Your task to perform on an android device: set the timer Image 0: 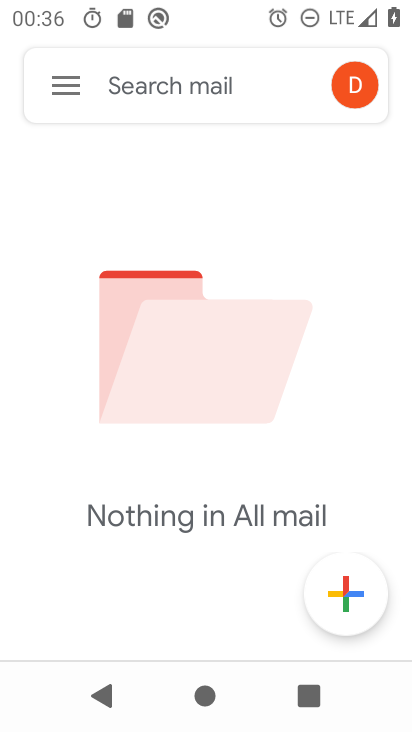
Step 0: press home button
Your task to perform on an android device: set the timer Image 1: 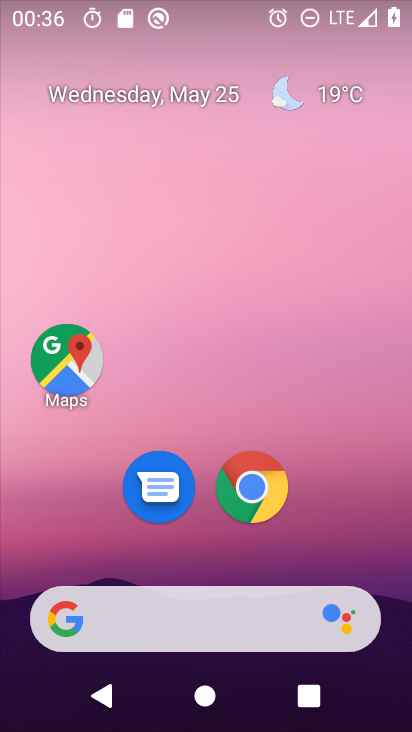
Step 1: drag from (354, 581) to (357, 12)
Your task to perform on an android device: set the timer Image 2: 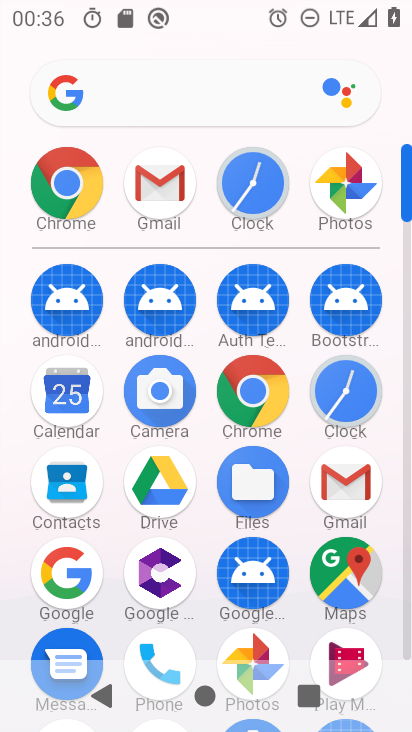
Step 2: click (251, 188)
Your task to perform on an android device: set the timer Image 3: 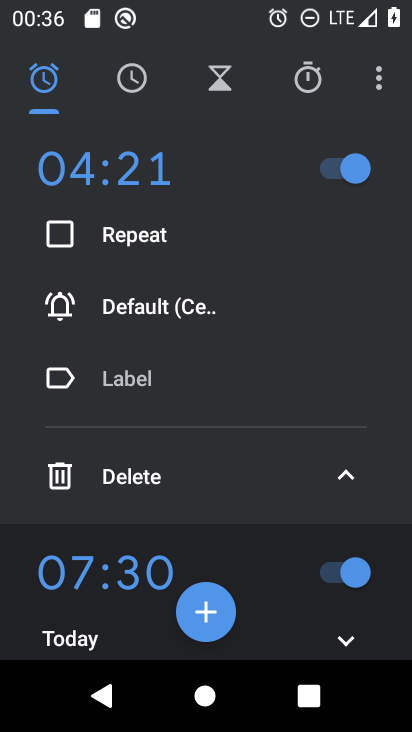
Step 3: click (224, 85)
Your task to perform on an android device: set the timer Image 4: 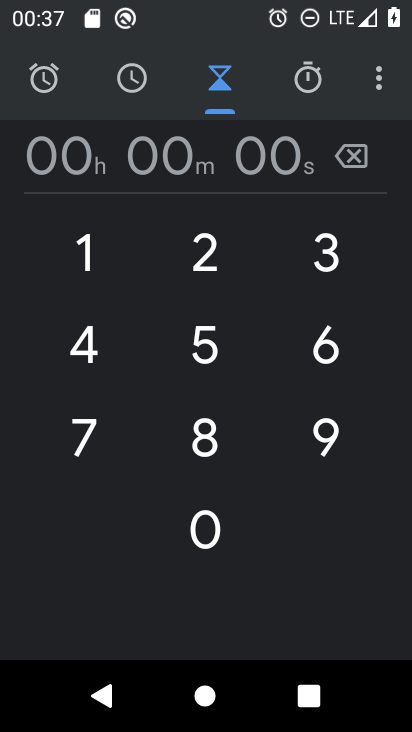
Step 4: click (314, 431)
Your task to perform on an android device: set the timer Image 5: 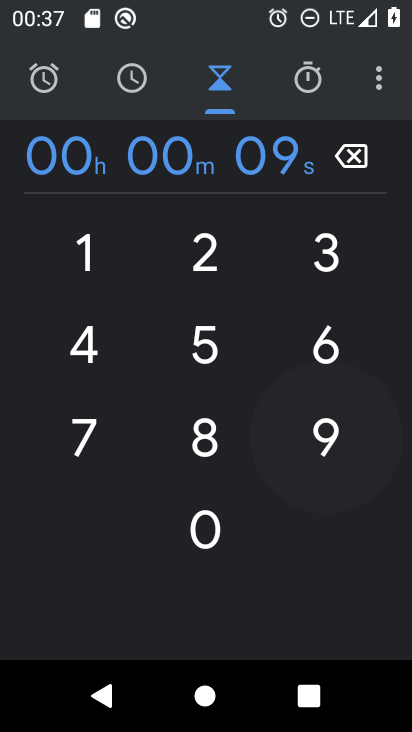
Step 5: click (189, 546)
Your task to perform on an android device: set the timer Image 6: 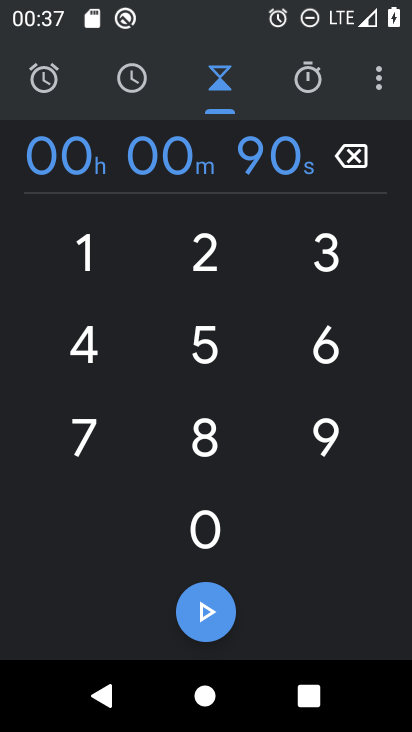
Step 6: click (211, 618)
Your task to perform on an android device: set the timer Image 7: 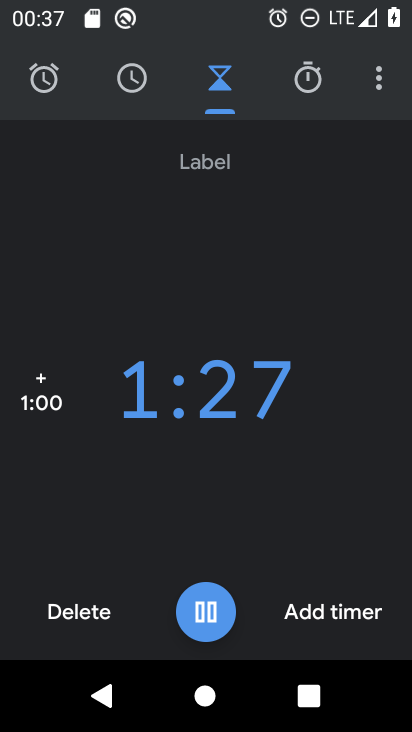
Step 7: task complete